Your task to perform on an android device: open app "Google Pay: Save, Pay, Manage" Image 0: 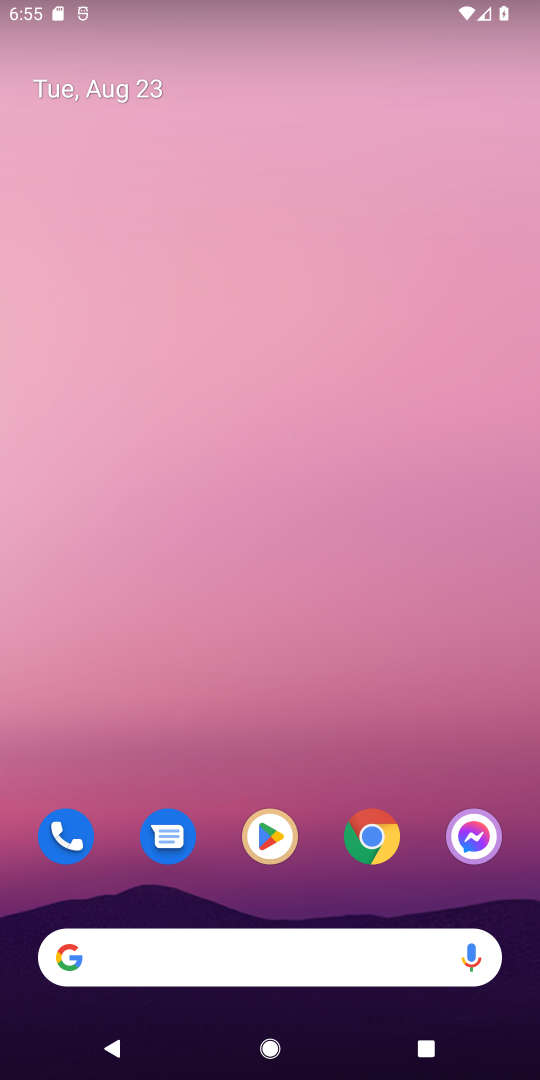
Step 0: click (275, 842)
Your task to perform on an android device: open app "Google Pay: Save, Pay, Manage" Image 1: 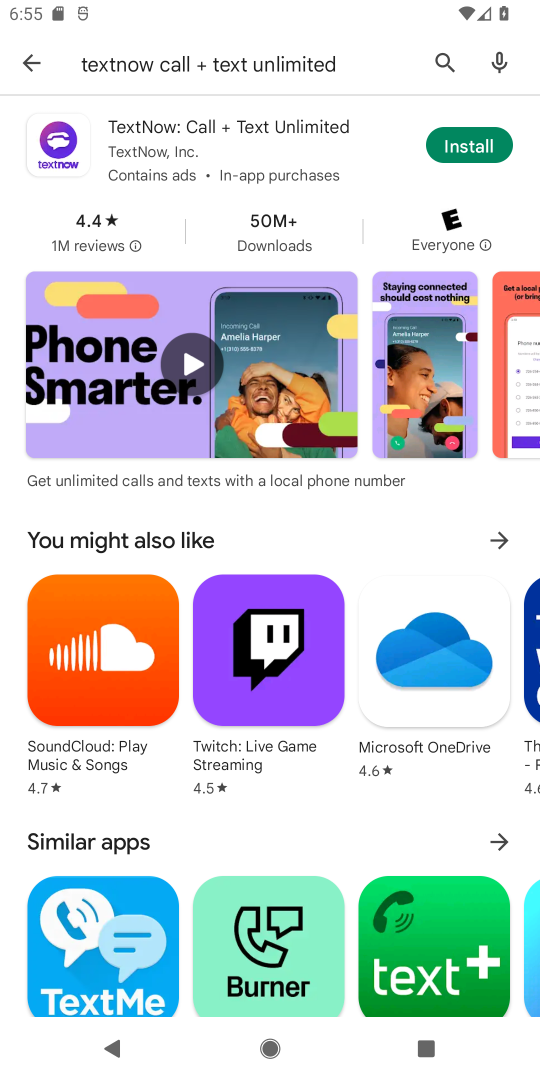
Step 1: click (439, 52)
Your task to perform on an android device: open app "Google Pay: Save, Pay, Manage" Image 2: 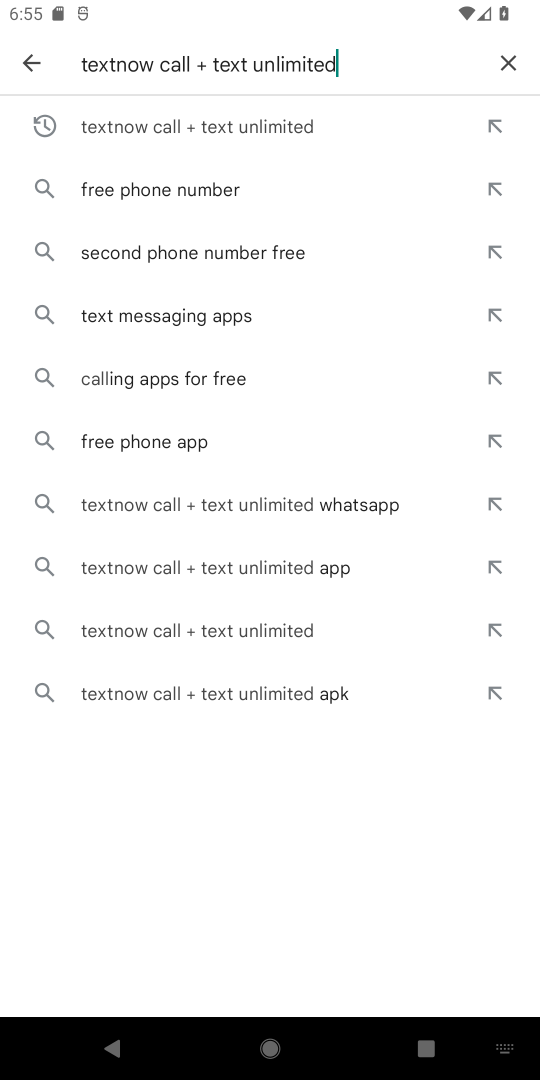
Step 2: click (504, 58)
Your task to perform on an android device: open app "Google Pay: Save, Pay, Manage" Image 3: 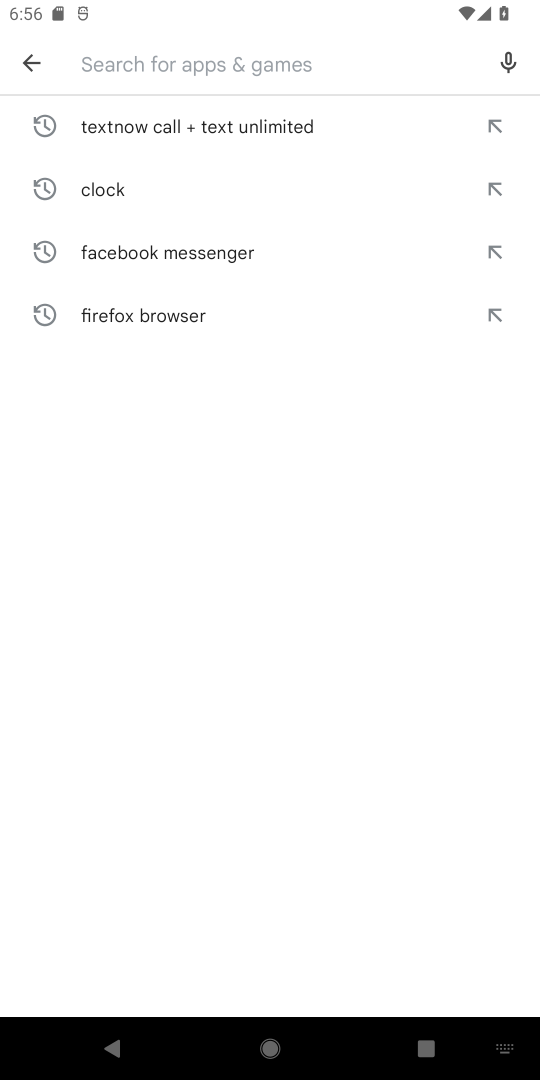
Step 3: type "Google Pay: Save, Pay, Manage"
Your task to perform on an android device: open app "Google Pay: Save, Pay, Manage" Image 4: 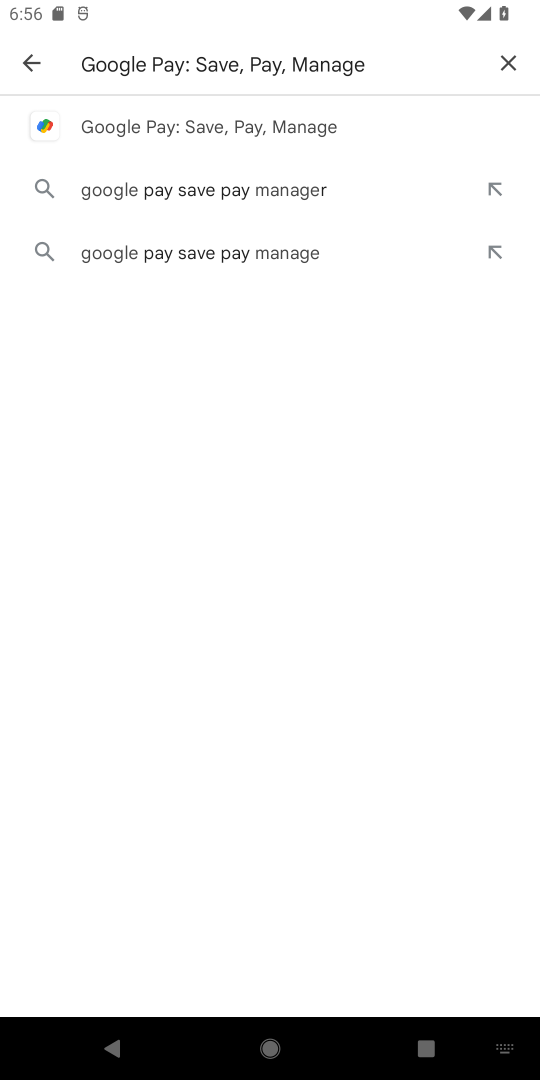
Step 4: click (229, 124)
Your task to perform on an android device: open app "Google Pay: Save, Pay, Manage" Image 5: 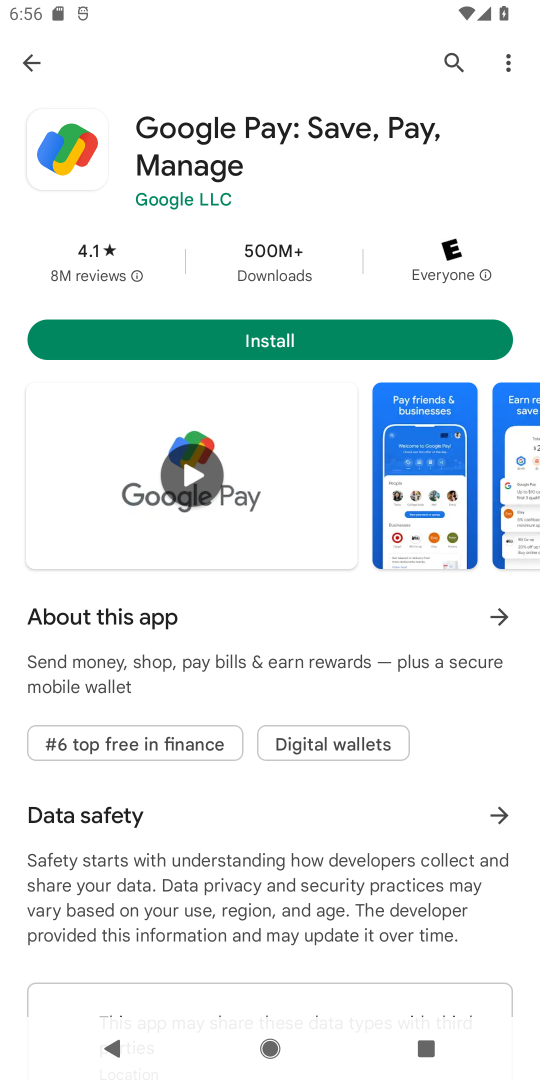
Step 5: task complete